Your task to perform on an android device: Open wifi settings Image 0: 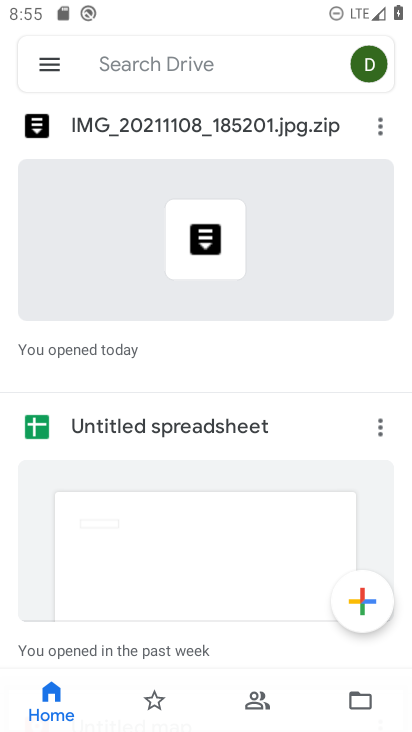
Step 0: press home button
Your task to perform on an android device: Open wifi settings Image 1: 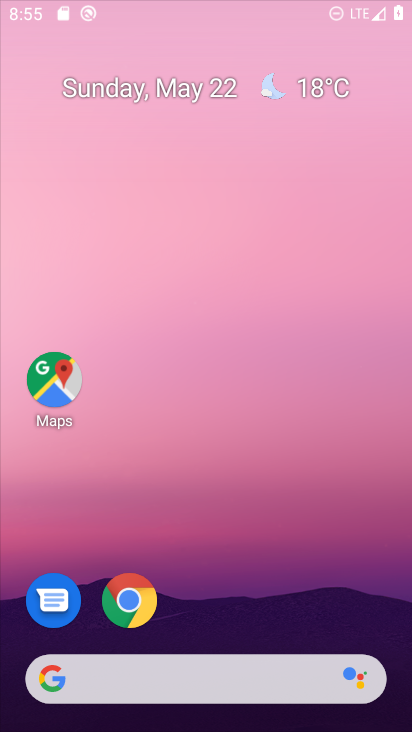
Step 1: drag from (378, 606) to (270, 19)
Your task to perform on an android device: Open wifi settings Image 2: 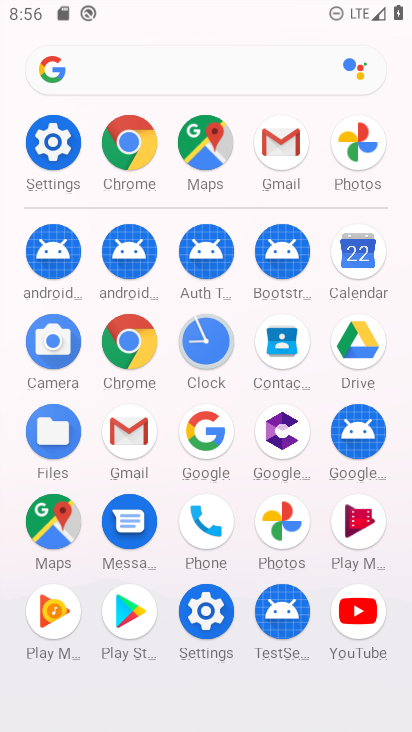
Step 2: click (192, 612)
Your task to perform on an android device: Open wifi settings Image 3: 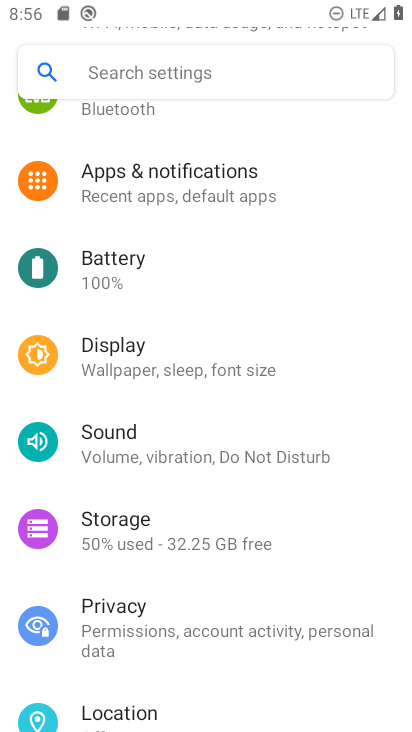
Step 3: drag from (253, 202) to (285, 688)
Your task to perform on an android device: Open wifi settings Image 4: 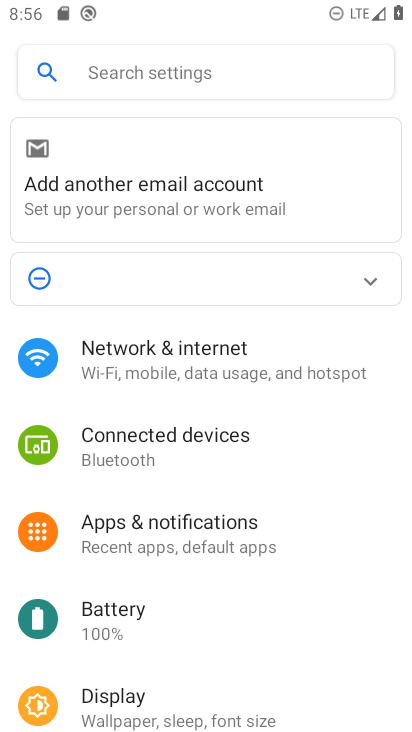
Step 4: click (206, 400)
Your task to perform on an android device: Open wifi settings Image 5: 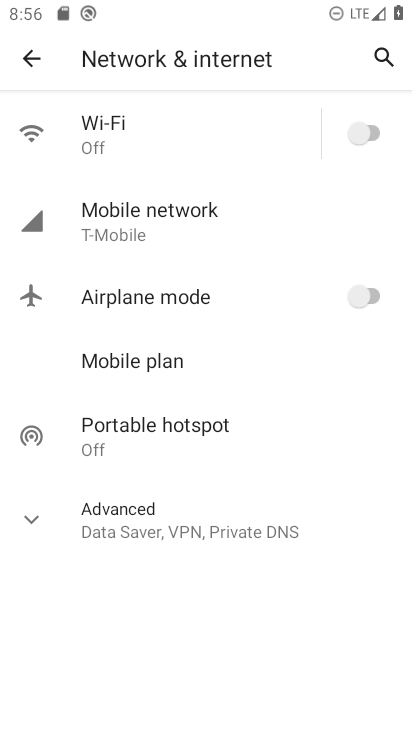
Step 5: click (155, 143)
Your task to perform on an android device: Open wifi settings Image 6: 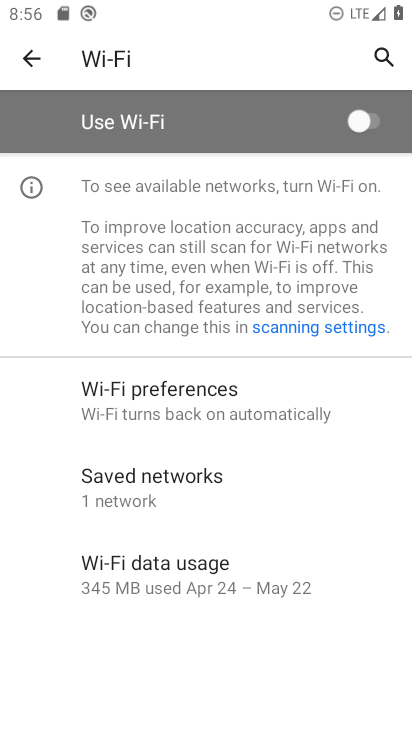
Step 6: task complete